Your task to perform on an android device: turn notification dots off Image 0: 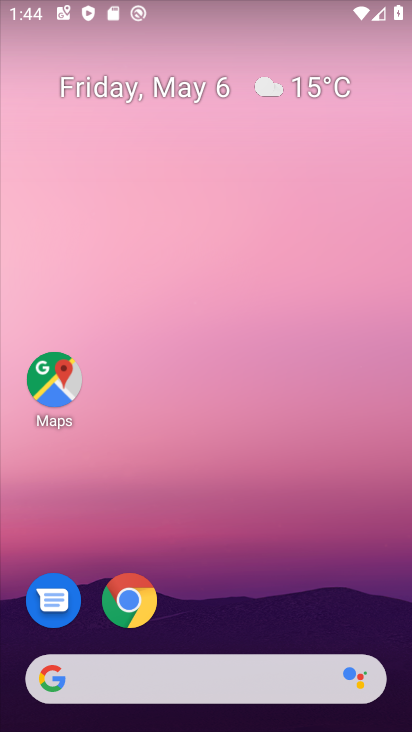
Step 0: drag from (261, 571) to (181, 9)
Your task to perform on an android device: turn notification dots off Image 1: 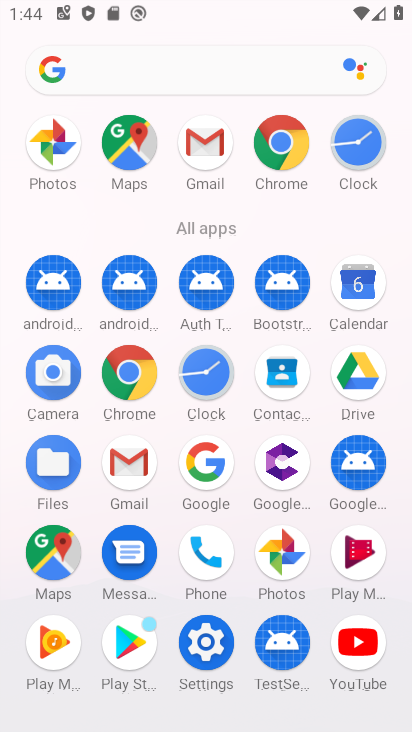
Step 1: drag from (7, 539) to (27, 224)
Your task to perform on an android device: turn notification dots off Image 2: 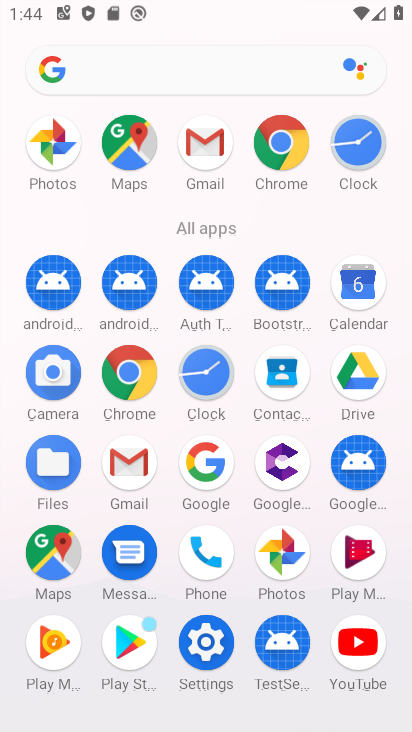
Step 2: click (209, 634)
Your task to perform on an android device: turn notification dots off Image 3: 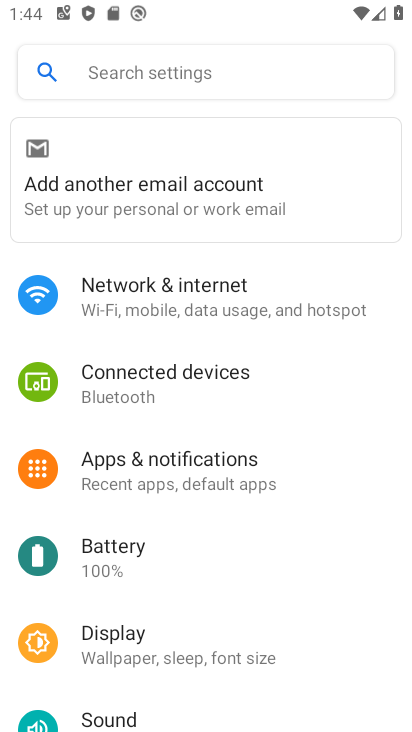
Step 3: drag from (320, 541) to (360, 178)
Your task to perform on an android device: turn notification dots off Image 4: 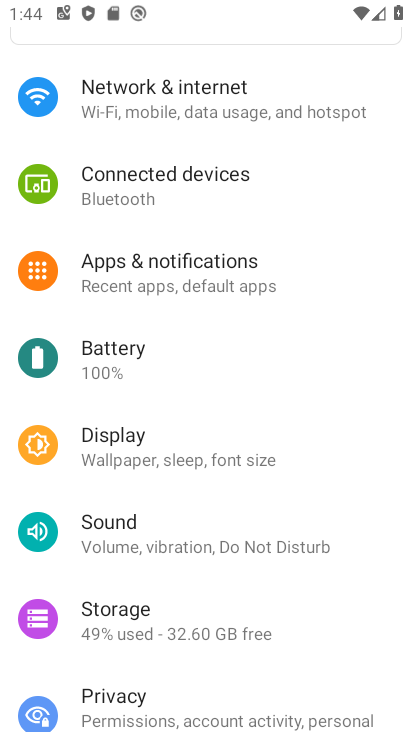
Step 4: click (206, 285)
Your task to perform on an android device: turn notification dots off Image 5: 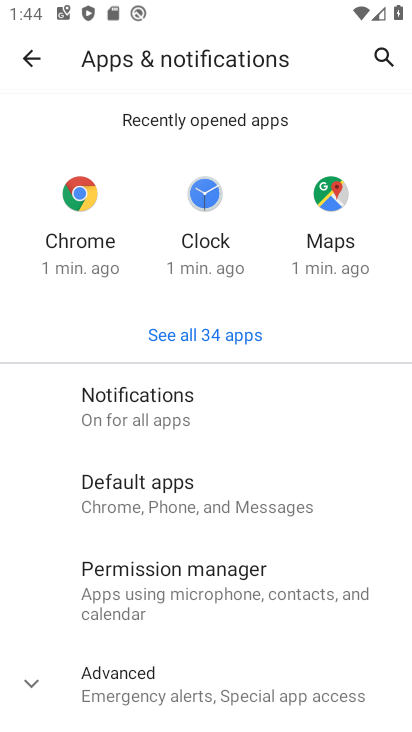
Step 5: drag from (235, 636) to (243, 209)
Your task to perform on an android device: turn notification dots off Image 6: 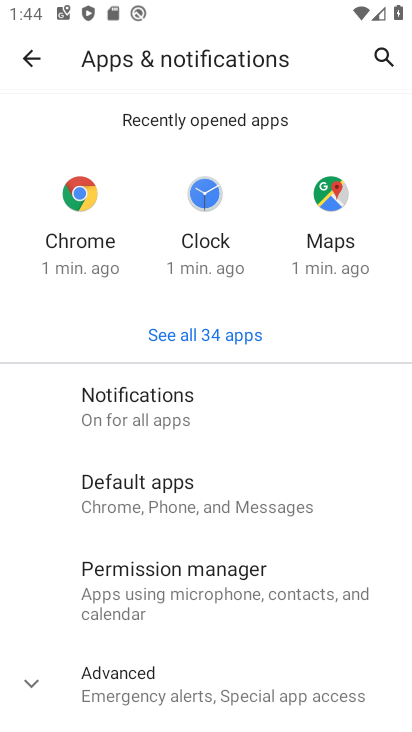
Step 6: click (200, 409)
Your task to perform on an android device: turn notification dots off Image 7: 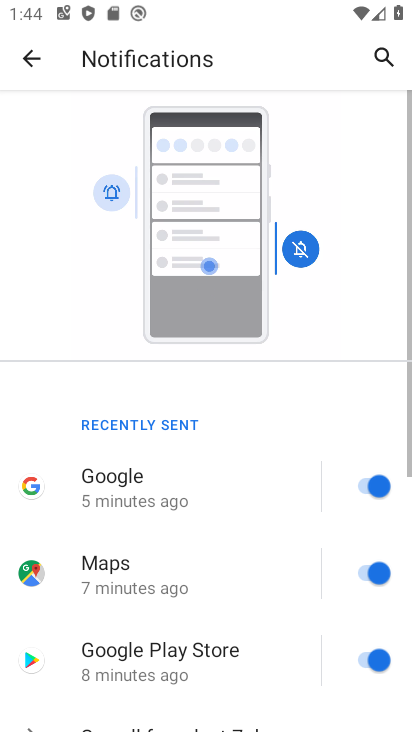
Step 7: drag from (248, 601) to (281, 97)
Your task to perform on an android device: turn notification dots off Image 8: 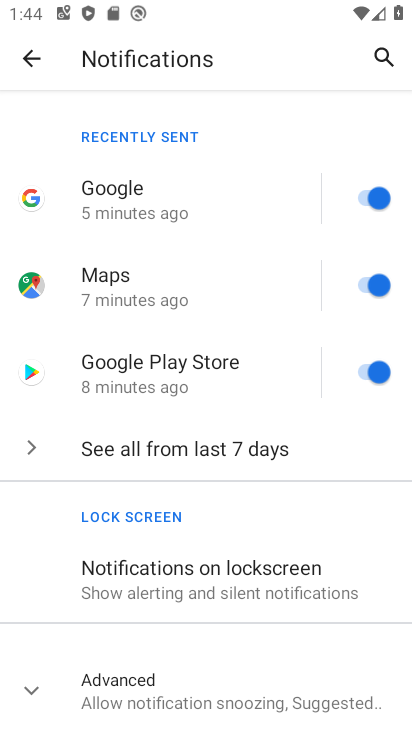
Step 8: click (89, 673)
Your task to perform on an android device: turn notification dots off Image 9: 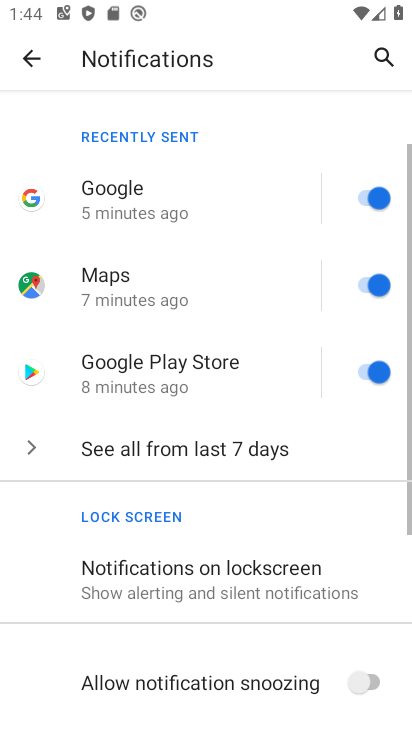
Step 9: drag from (214, 560) to (235, 90)
Your task to perform on an android device: turn notification dots off Image 10: 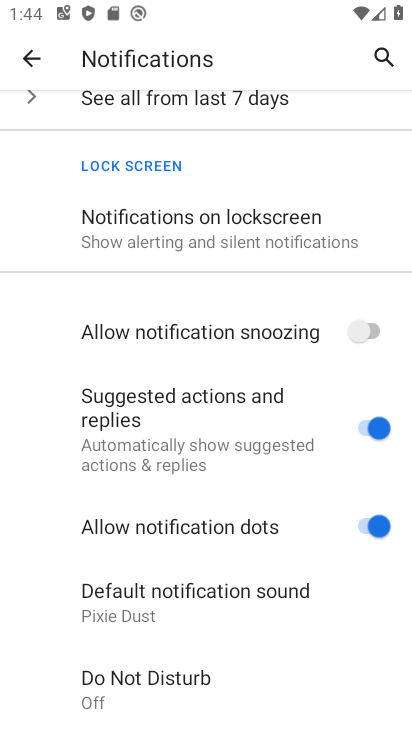
Step 10: drag from (177, 596) to (183, 98)
Your task to perform on an android device: turn notification dots off Image 11: 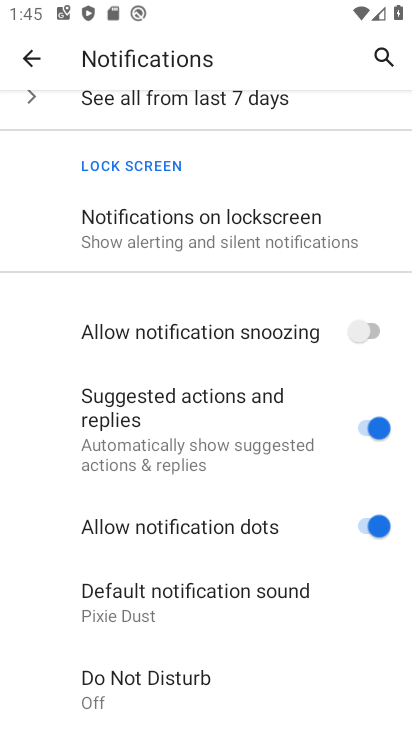
Step 11: click (350, 525)
Your task to perform on an android device: turn notification dots off Image 12: 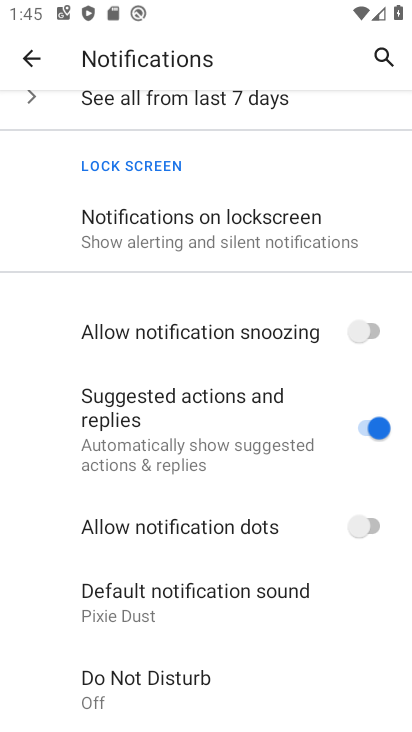
Step 12: task complete